Your task to perform on an android device: Play the new Taylor Swift video on YouTube Image 0: 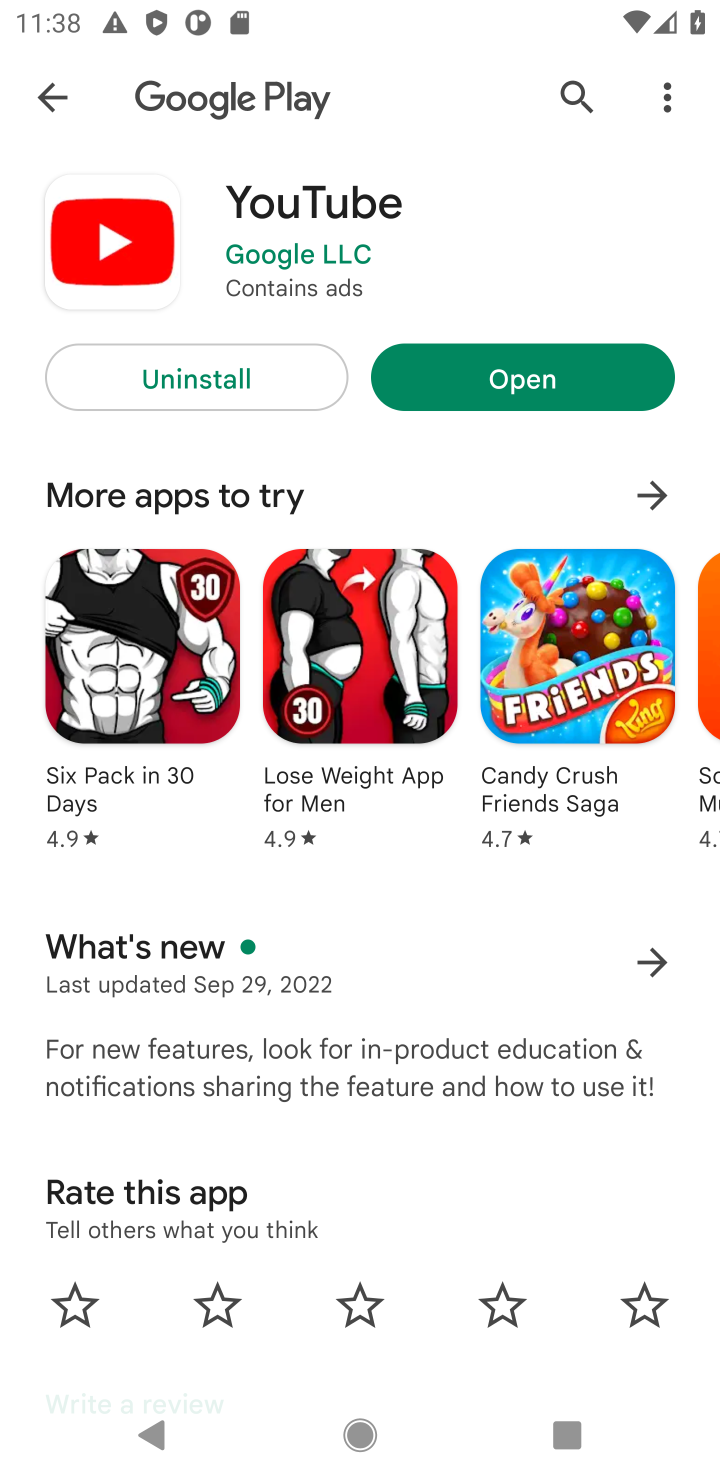
Step 0: press home button
Your task to perform on an android device: Play the new Taylor Swift video on YouTube Image 1: 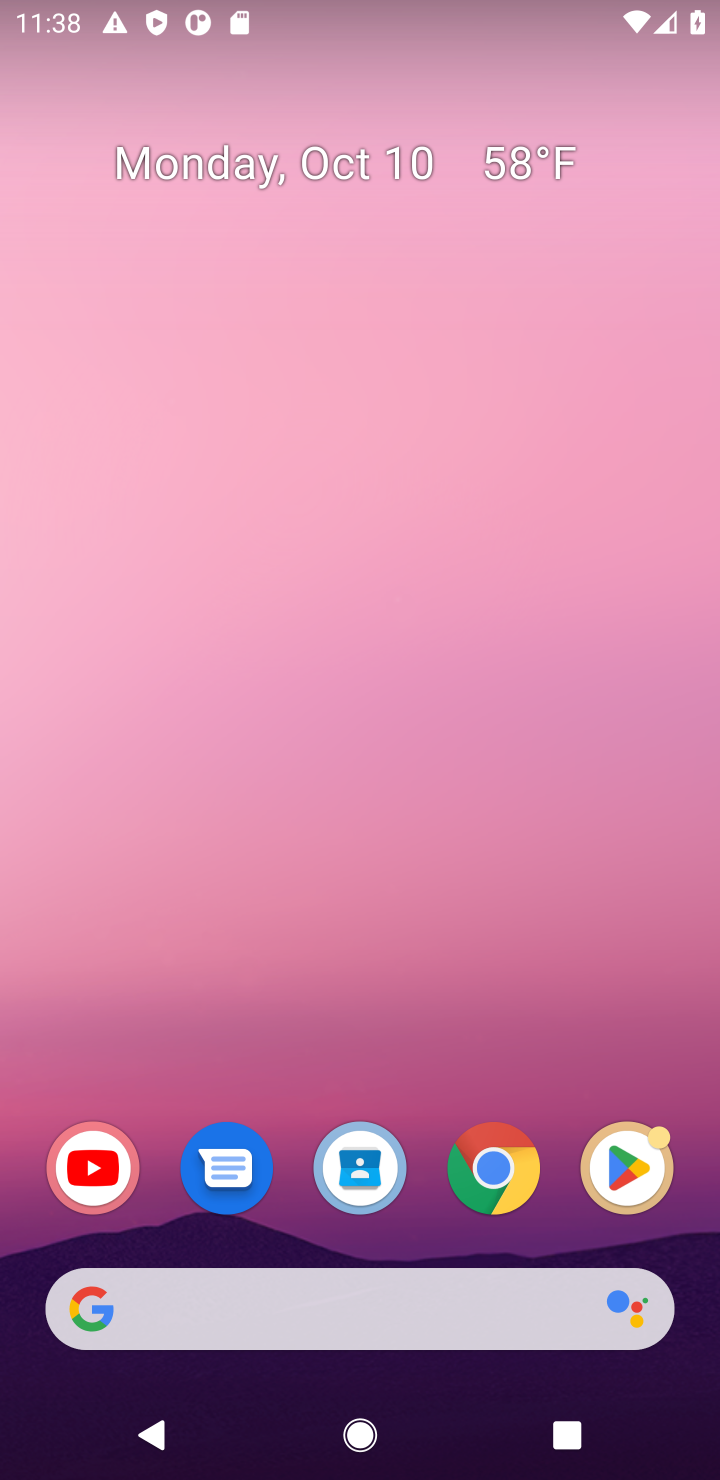
Step 1: click (121, 1156)
Your task to perform on an android device: Play the new Taylor Swift video on YouTube Image 2: 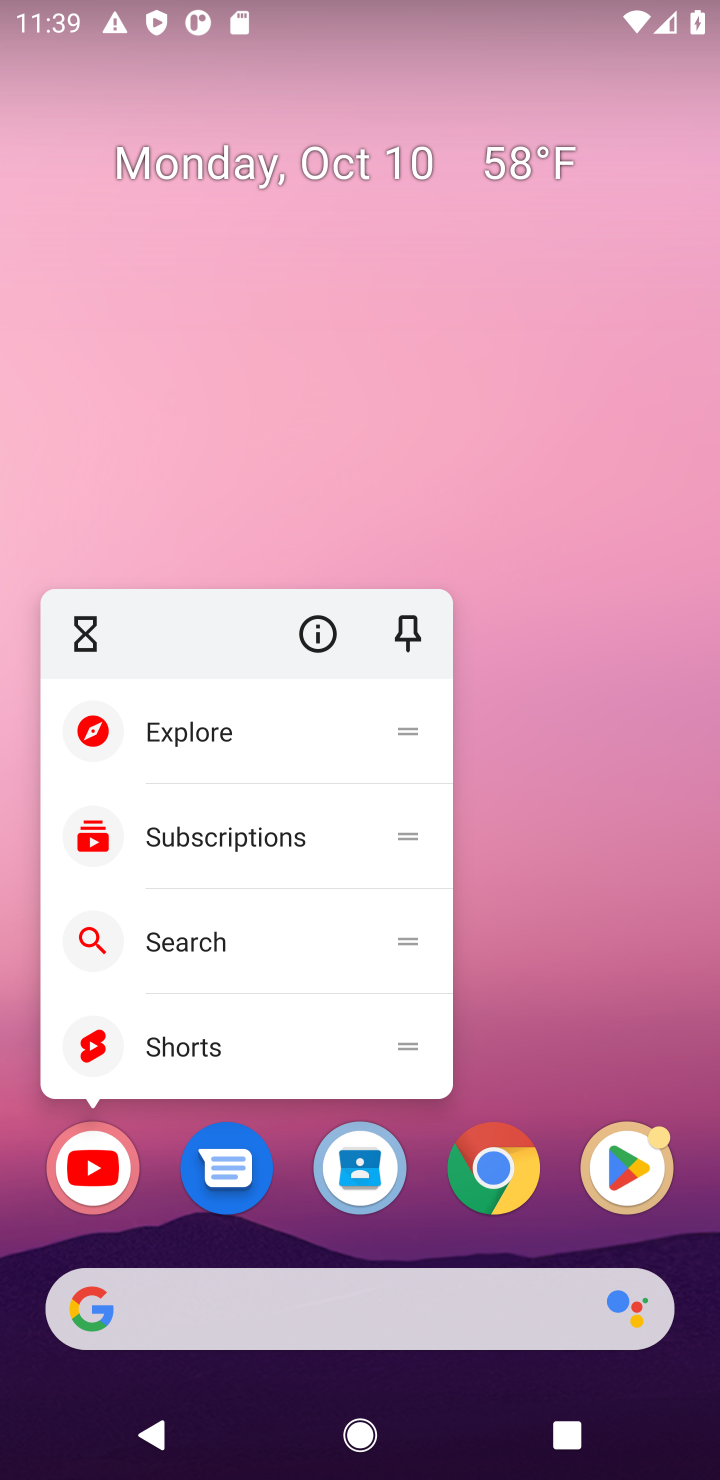
Step 2: click (86, 1183)
Your task to perform on an android device: Play the new Taylor Swift video on YouTube Image 3: 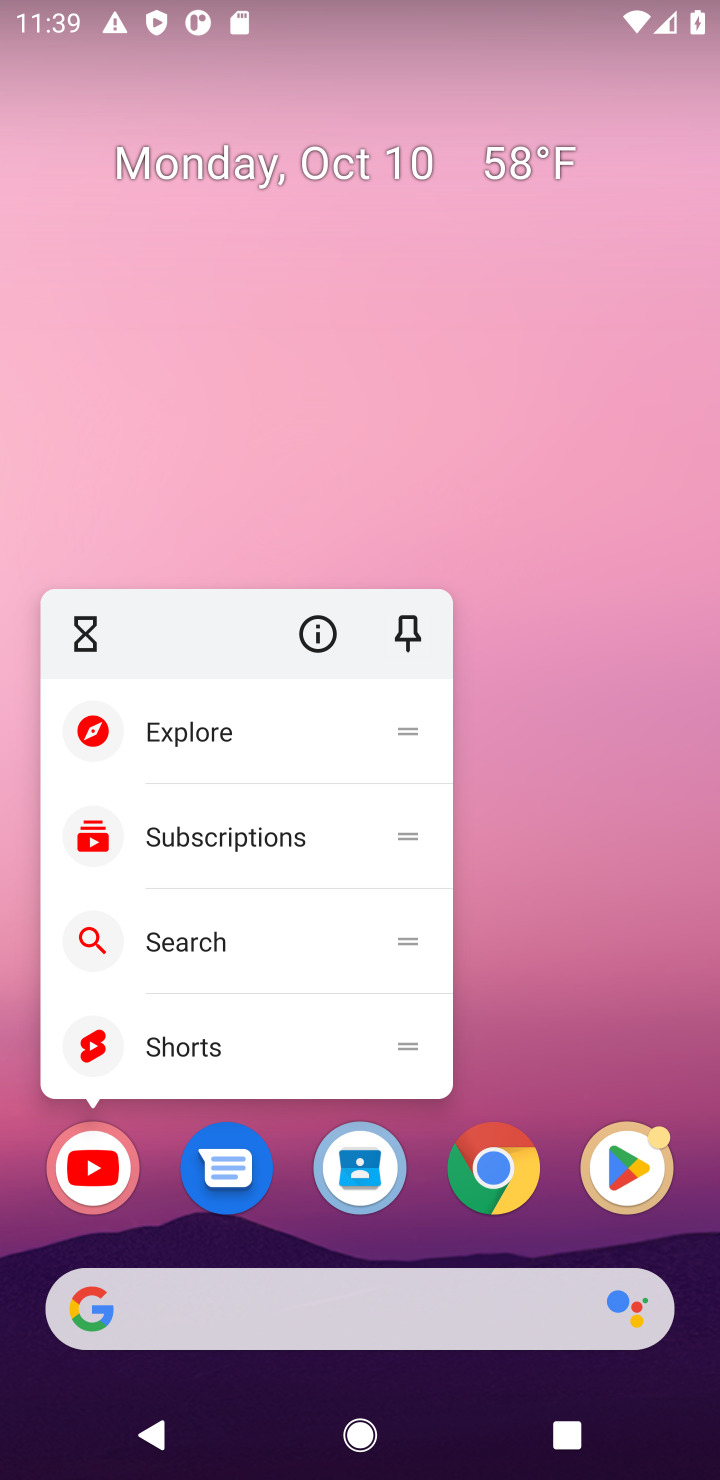
Step 3: click (80, 1179)
Your task to perform on an android device: Play the new Taylor Swift video on YouTube Image 4: 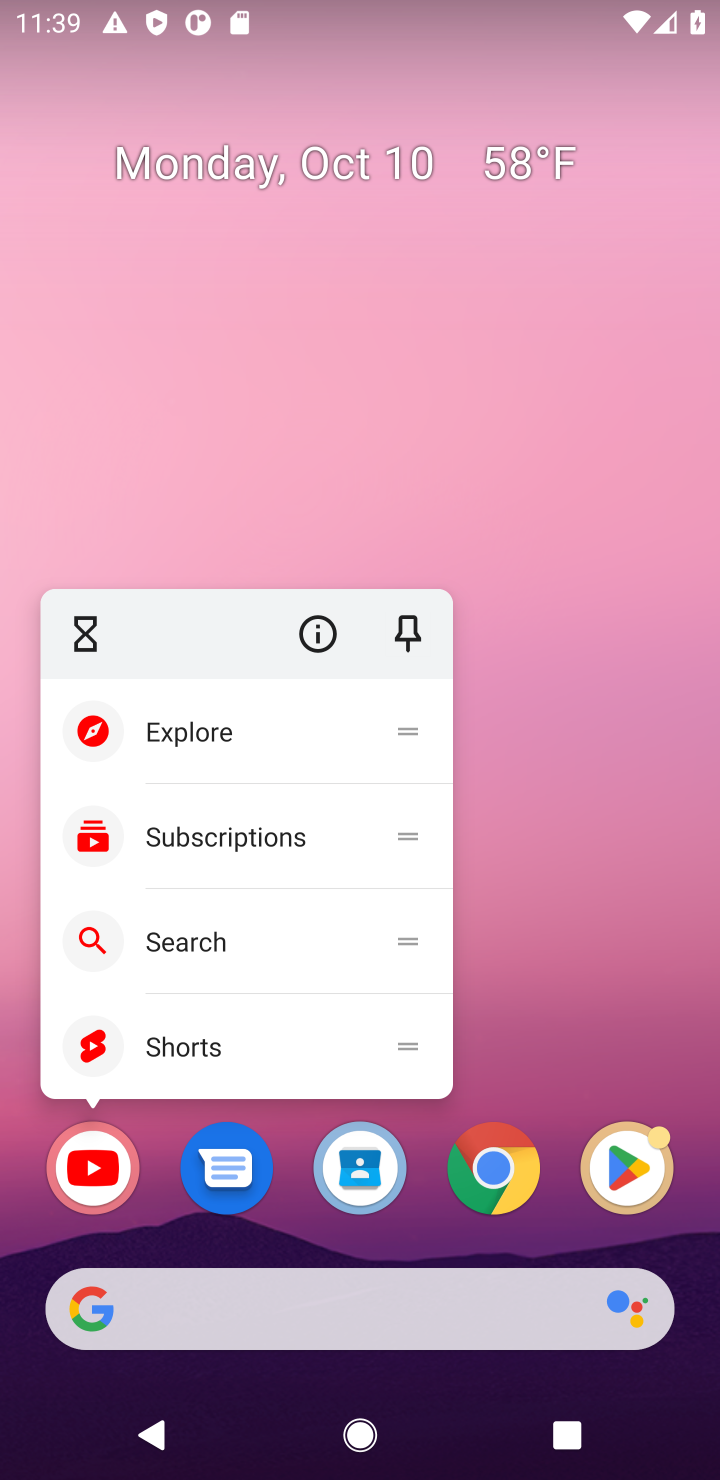
Step 4: click (99, 1170)
Your task to perform on an android device: Play the new Taylor Swift video on YouTube Image 5: 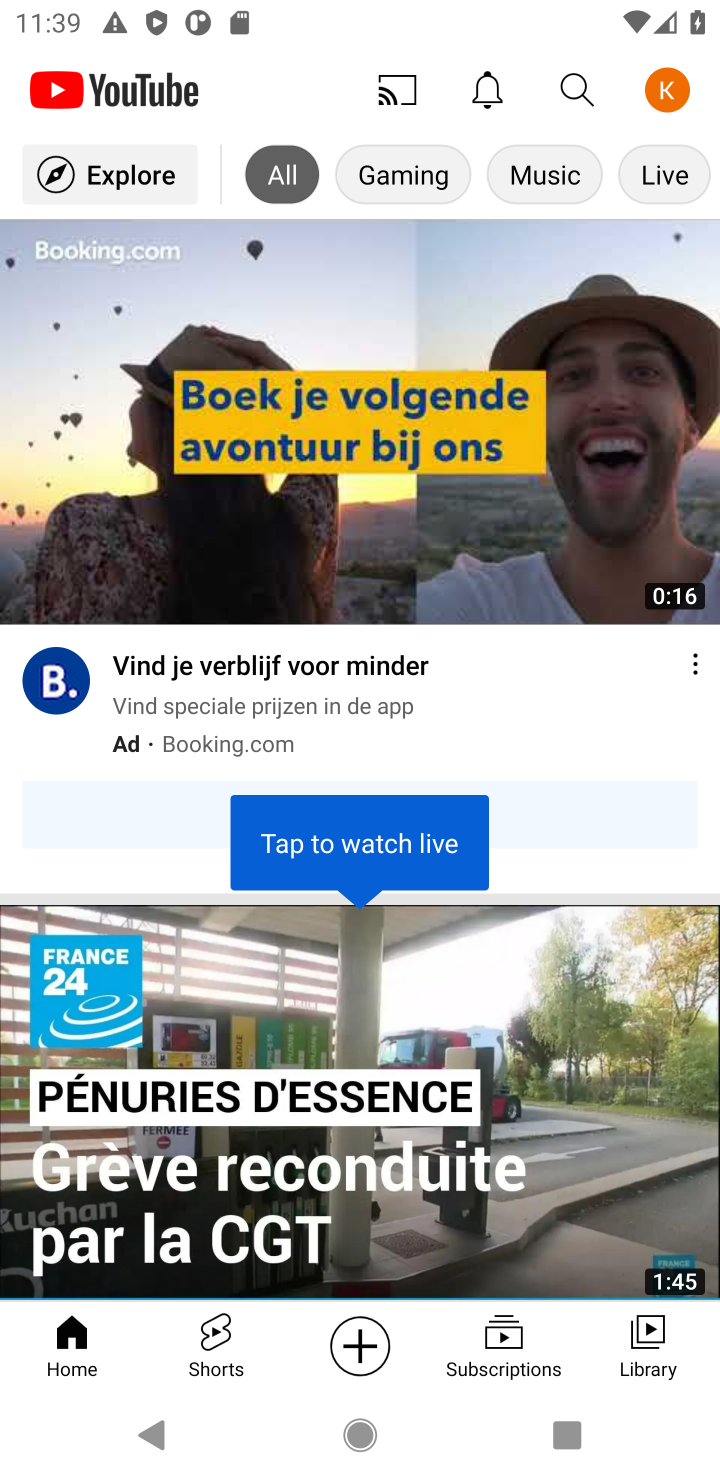
Step 5: click (563, 97)
Your task to perform on an android device: Play the new Taylor Swift video on YouTube Image 6: 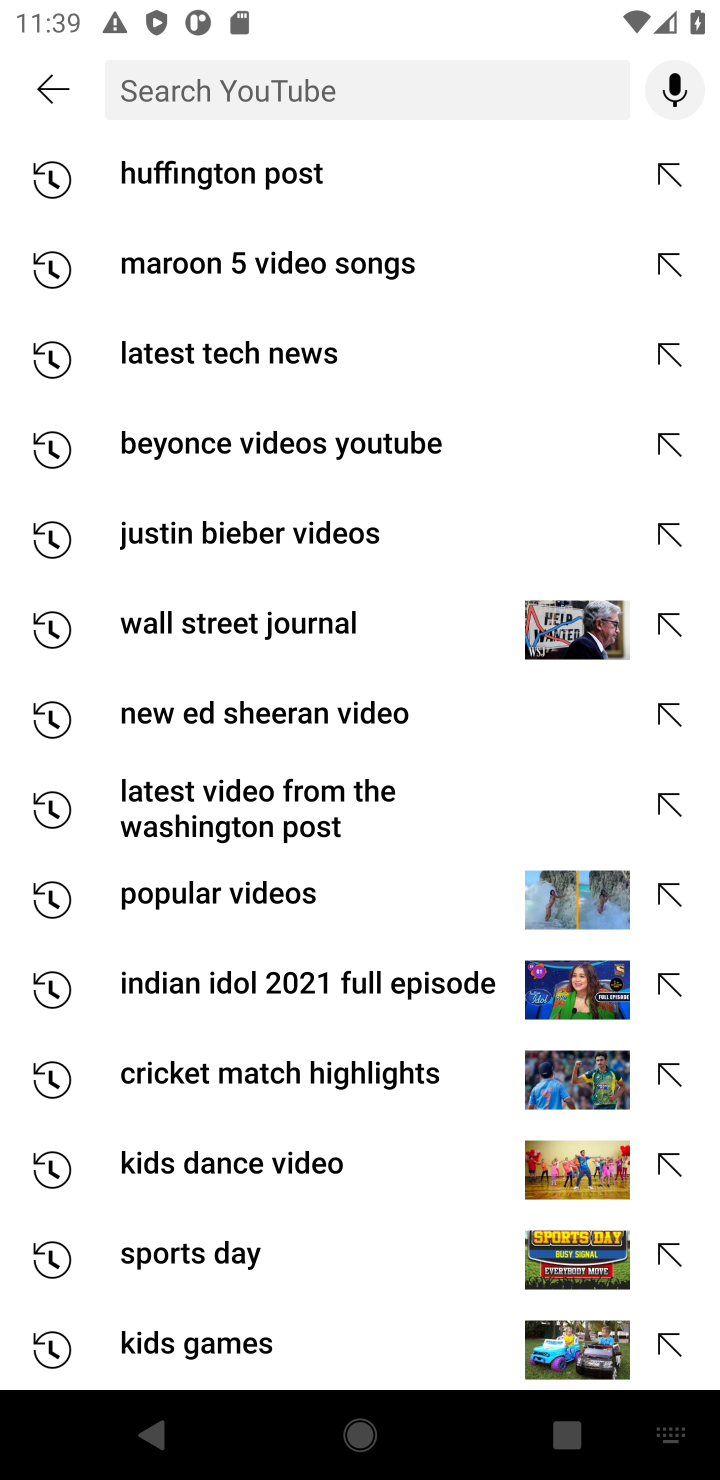
Step 6: type "Taylor Swift video"
Your task to perform on an android device: Play the new Taylor Swift video on YouTube Image 7: 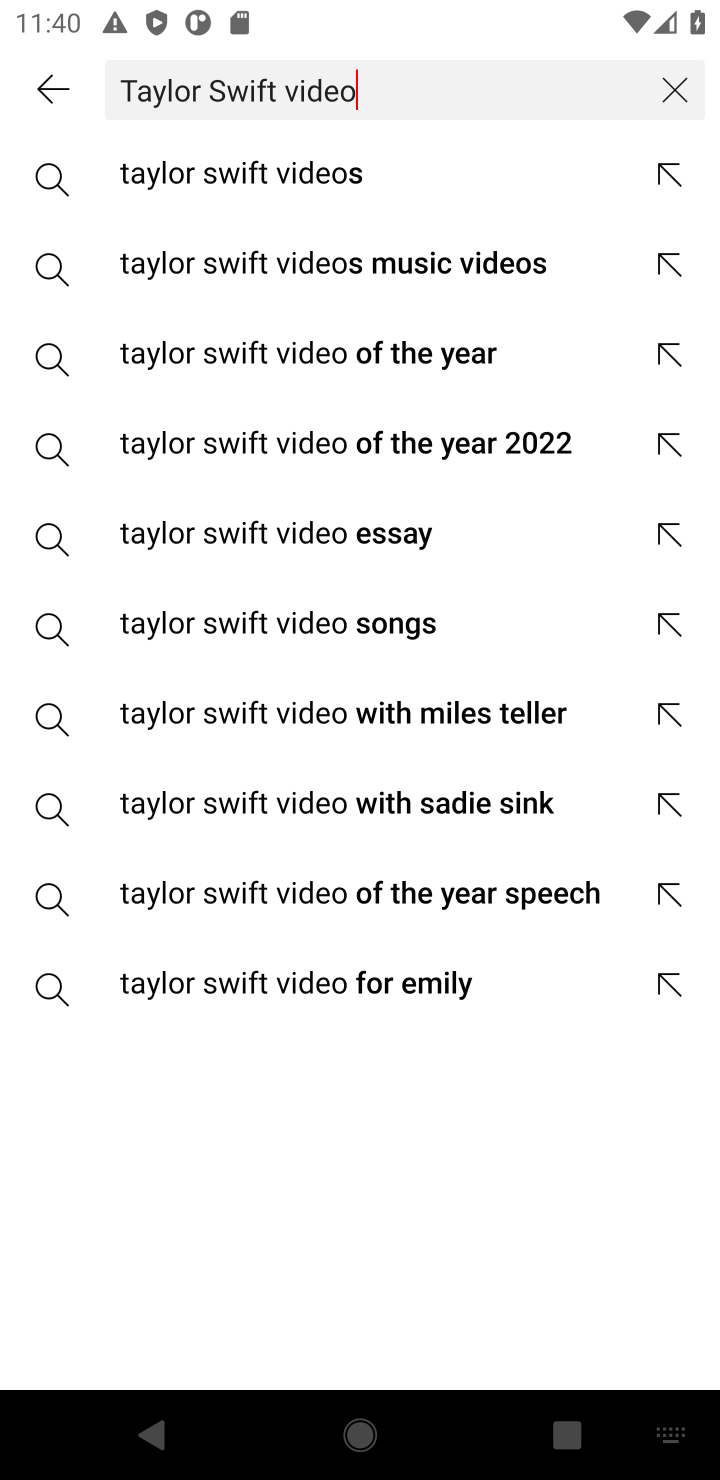
Step 7: click (282, 175)
Your task to perform on an android device: Play the new Taylor Swift video on YouTube Image 8: 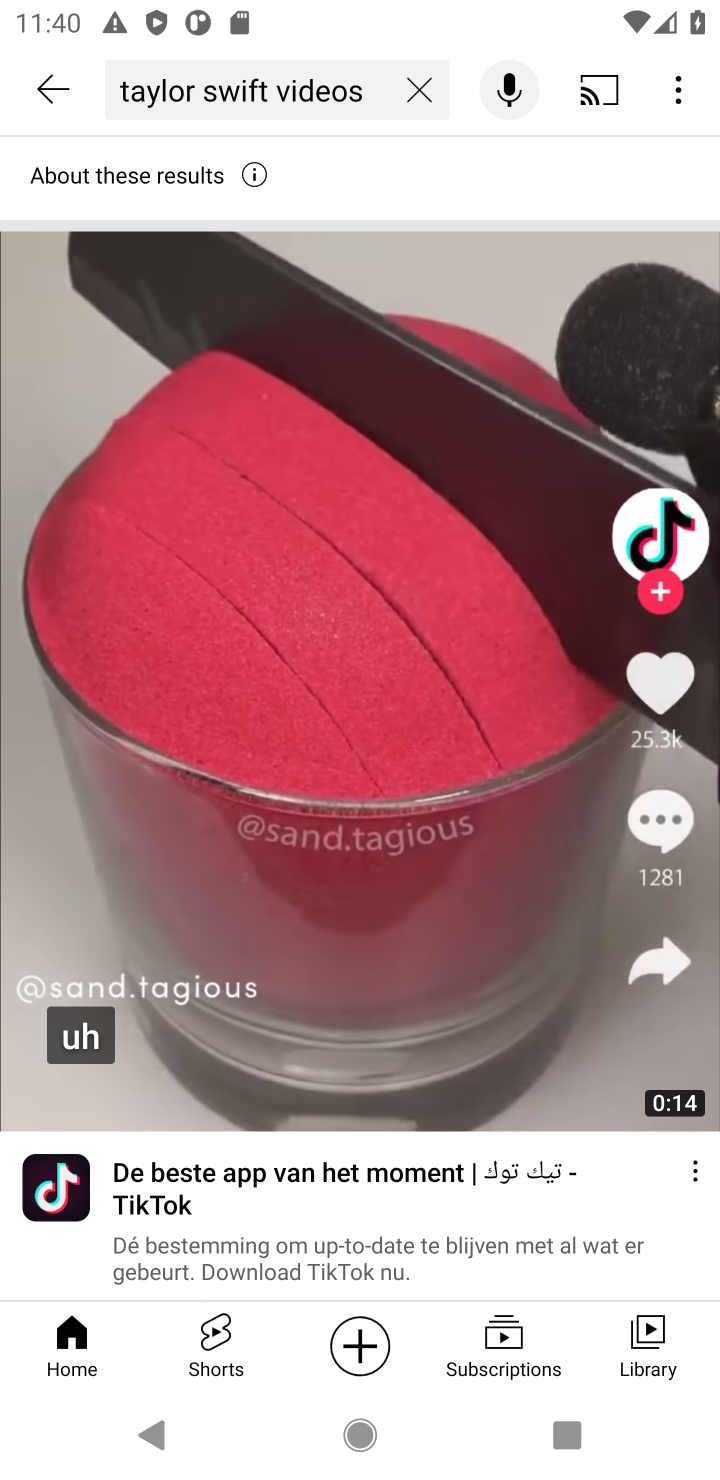
Step 8: drag from (284, 1072) to (296, 160)
Your task to perform on an android device: Play the new Taylor Swift video on YouTube Image 9: 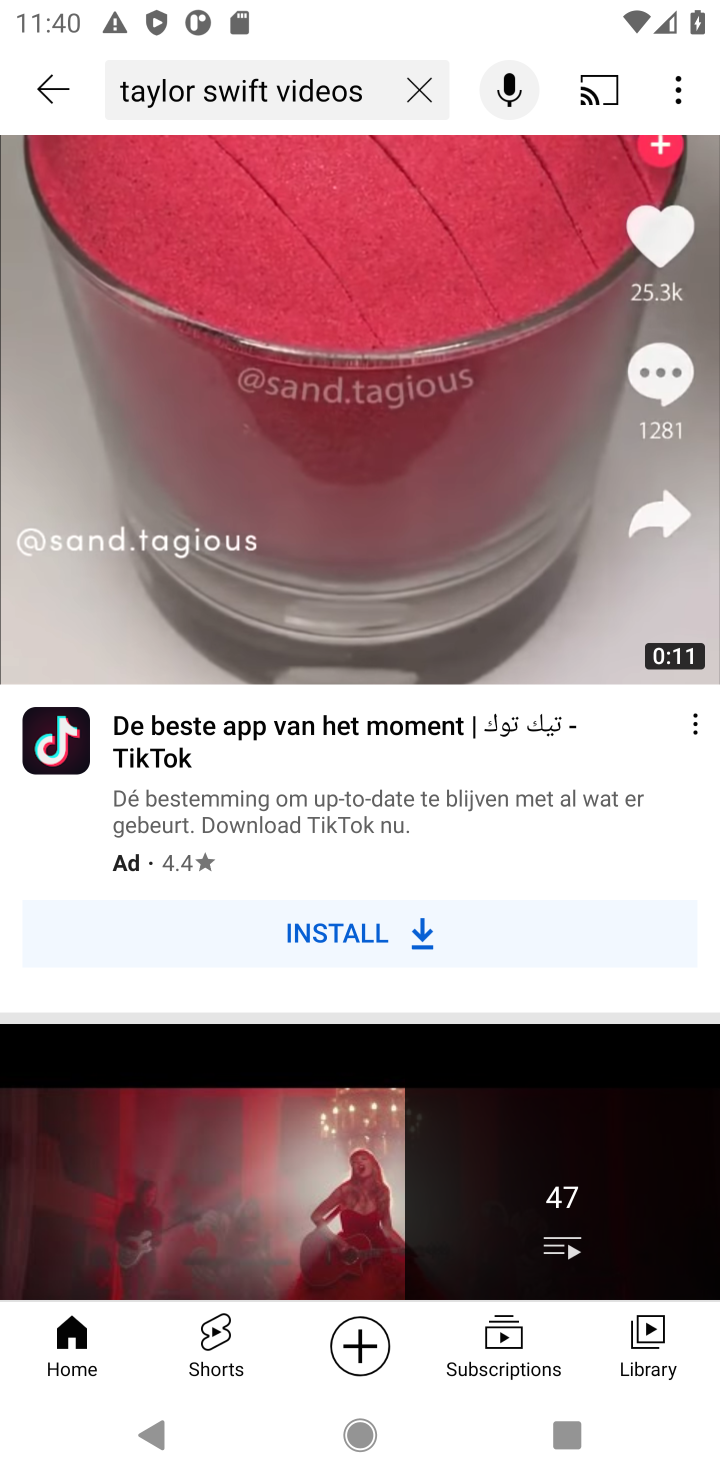
Step 9: drag from (368, 698) to (355, 341)
Your task to perform on an android device: Play the new Taylor Swift video on YouTube Image 10: 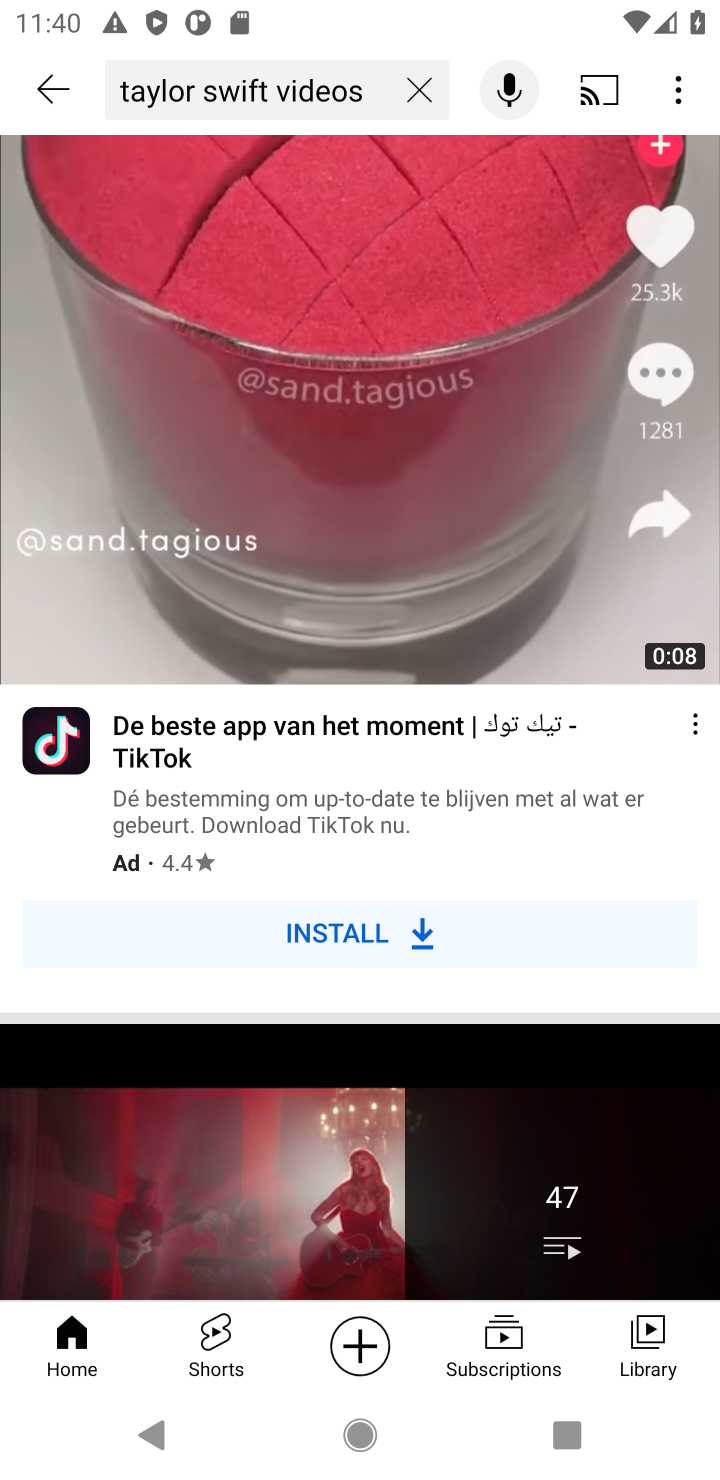
Step 10: drag from (391, 627) to (386, 367)
Your task to perform on an android device: Play the new Taylor Swift video on YouTube Image 11: 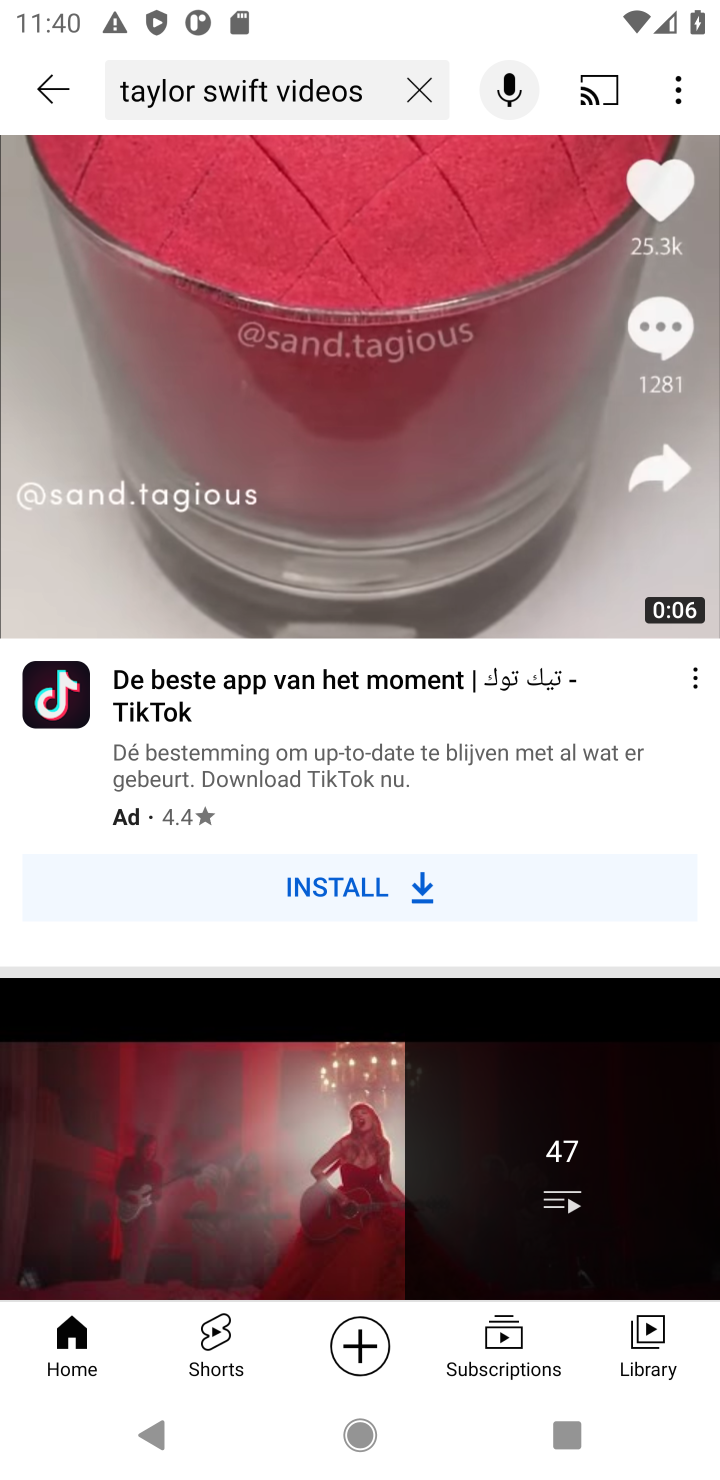
Step 11: drag from (471, 1010) to (494, 411)
Your task to perform on an android device: Play the new Taylor Swift video on YouTube Image 12: 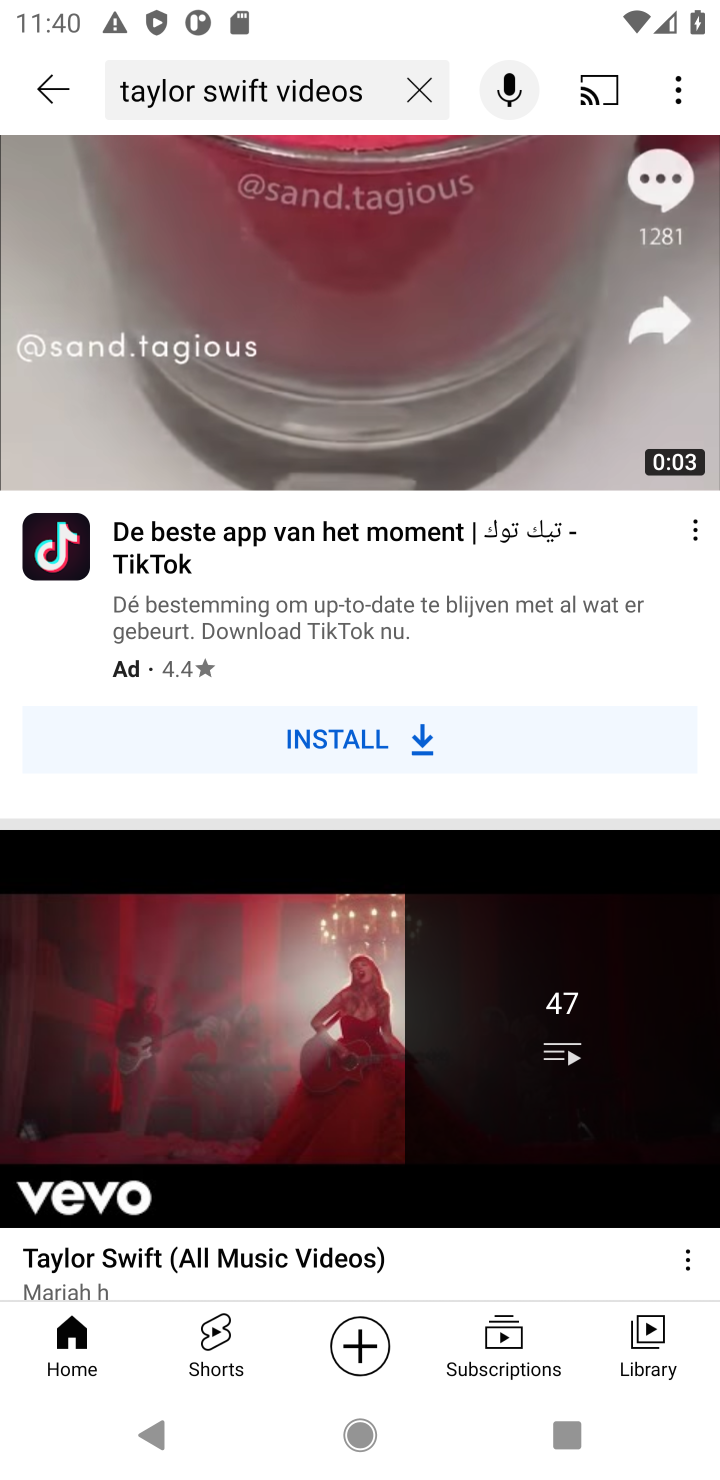
Step 12: drag from (349, 1243) to (415, 683)
Your task to perform on an android device: Play the new Taylor Swift video on YouTube Image 13: 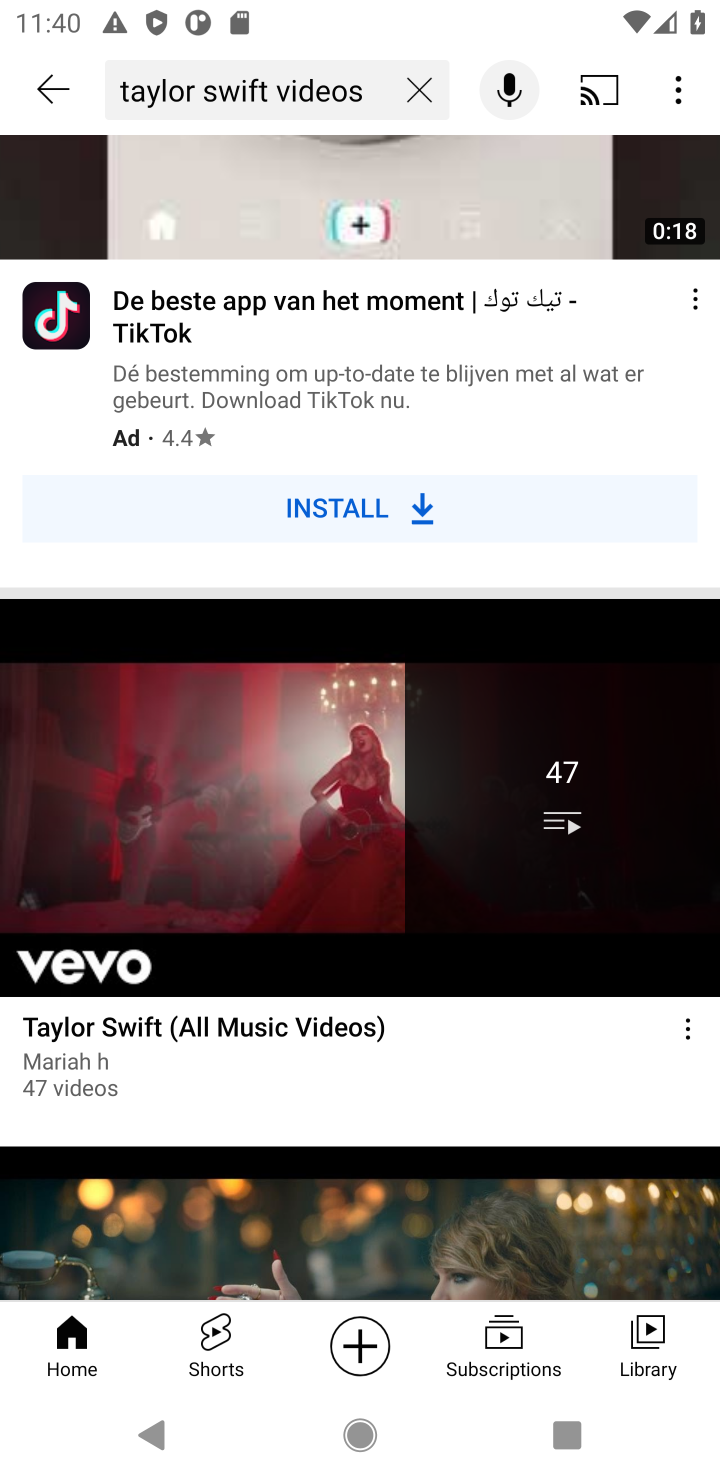
Step 13: drag from (396, 1160) to (422, 672)
Your task to perform on an android device: Play the new Taylor Swift video on YouTube Image 14: 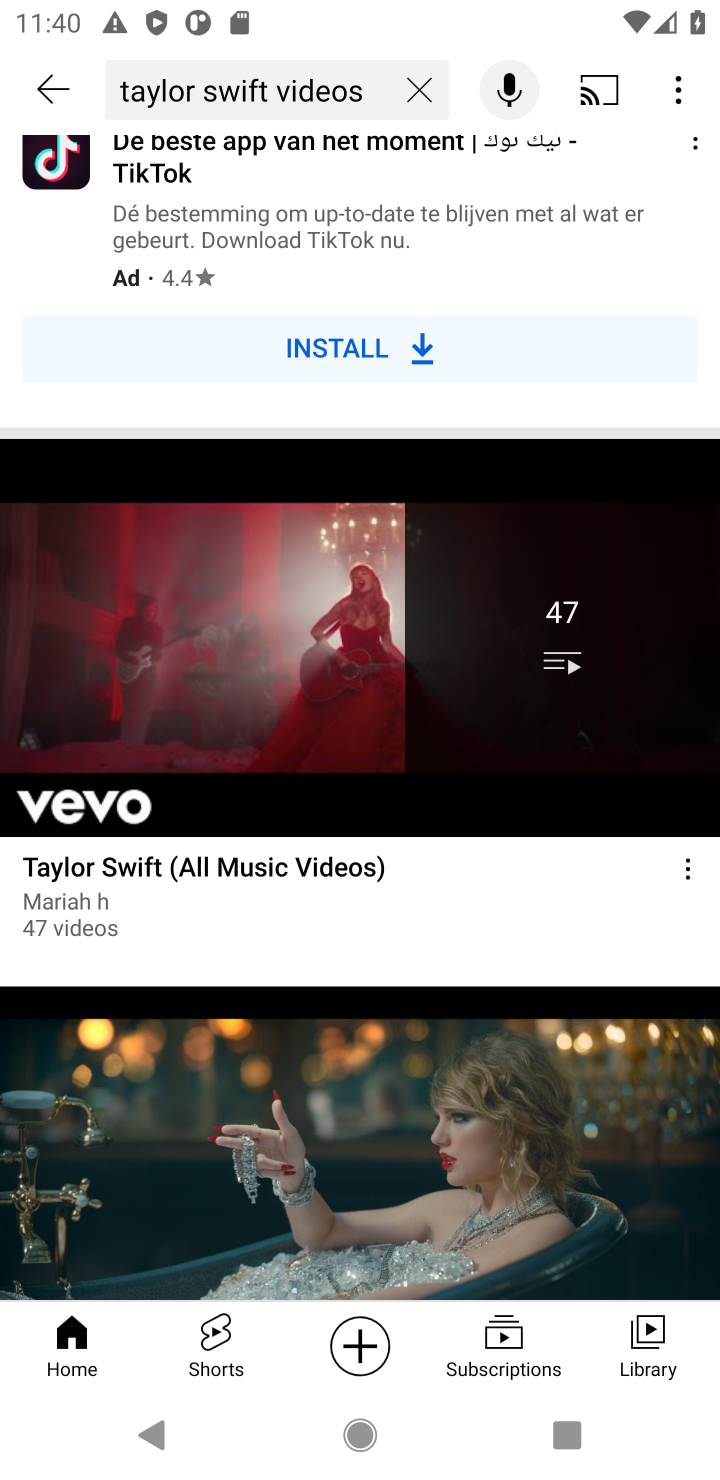
Step 14: click (381, 1092)
Your task to perform on an android device: Play the new Taylor Swift video on YouTube Image 15: 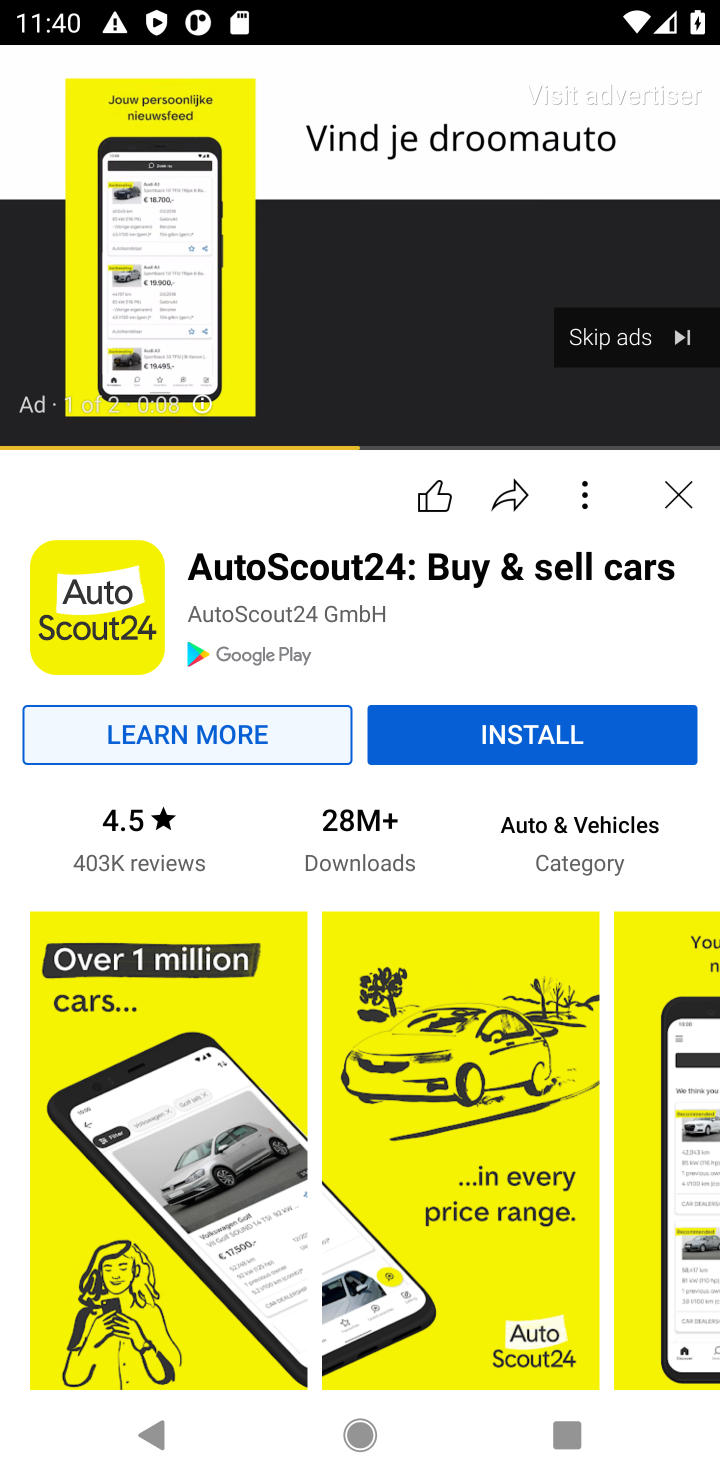
Step 15: click (646, 327)
Your task to perform on an android device: Play the new Taylor Swift video on YouTube Image 16: 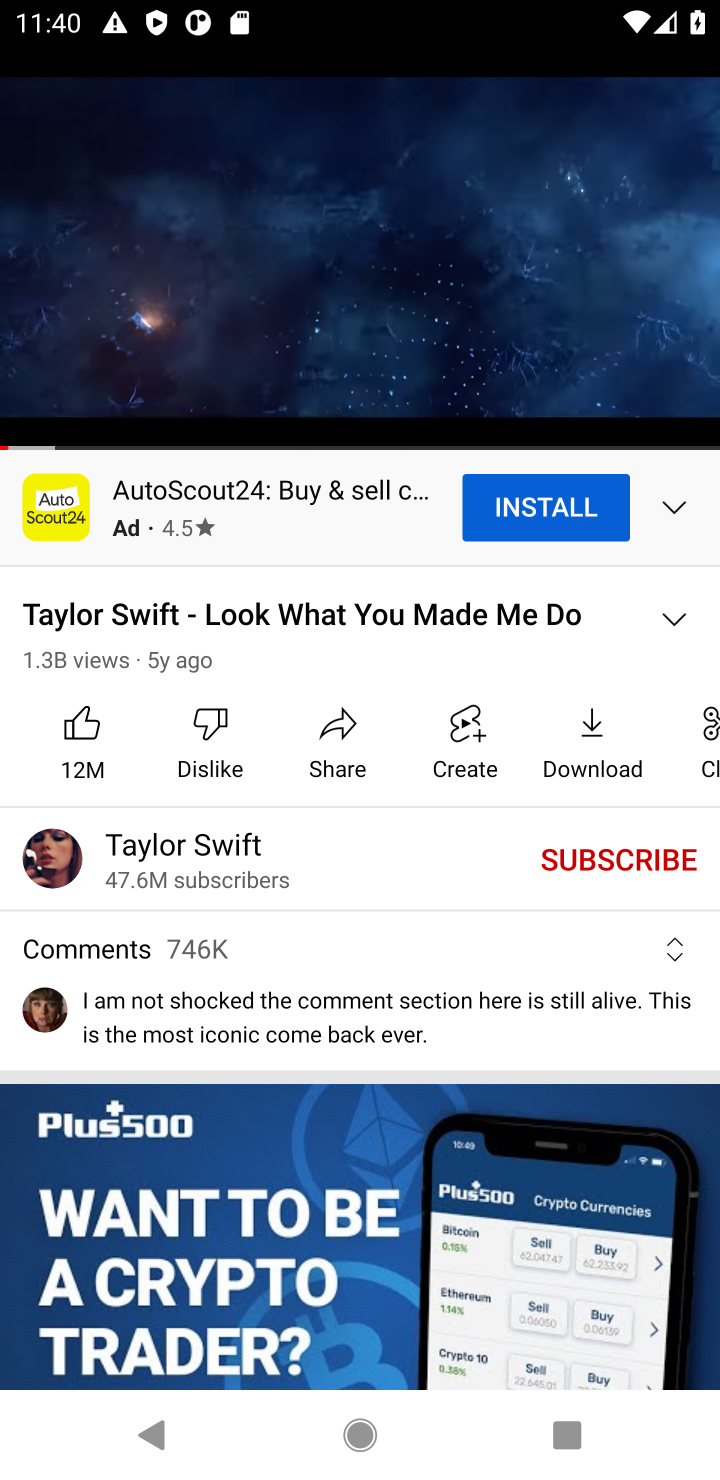
Step 16: click (409, 252)
Your task to perform on an android device: Play the new Taylor Swift video on YouTube Image 17: 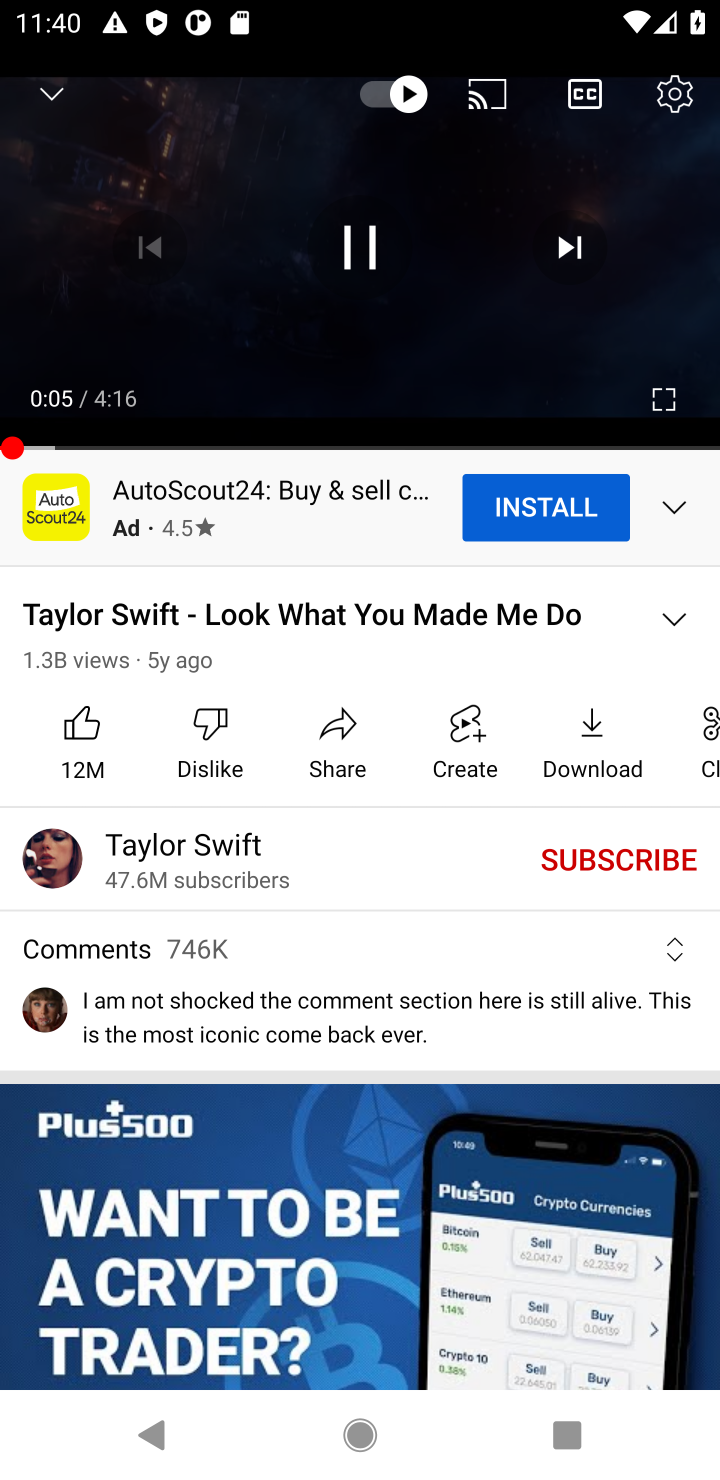
Step 17: click (349, 268)
Your task to perform on an android device: Play the new Taylor Swift video on YouTube Image 18: 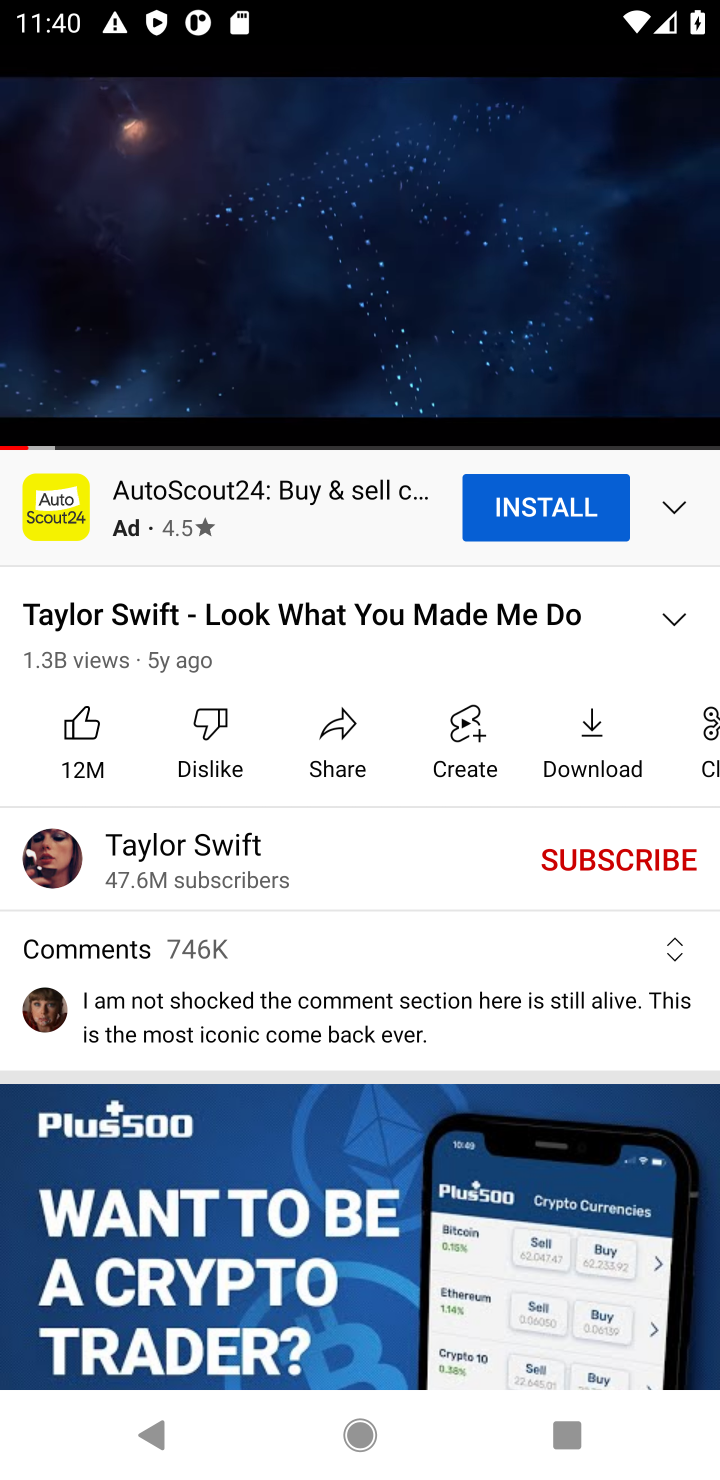
Step 18: click (348, 283)
Your task to perform on an android device: Play the new Taylor Swift video on YouTube Image 19: 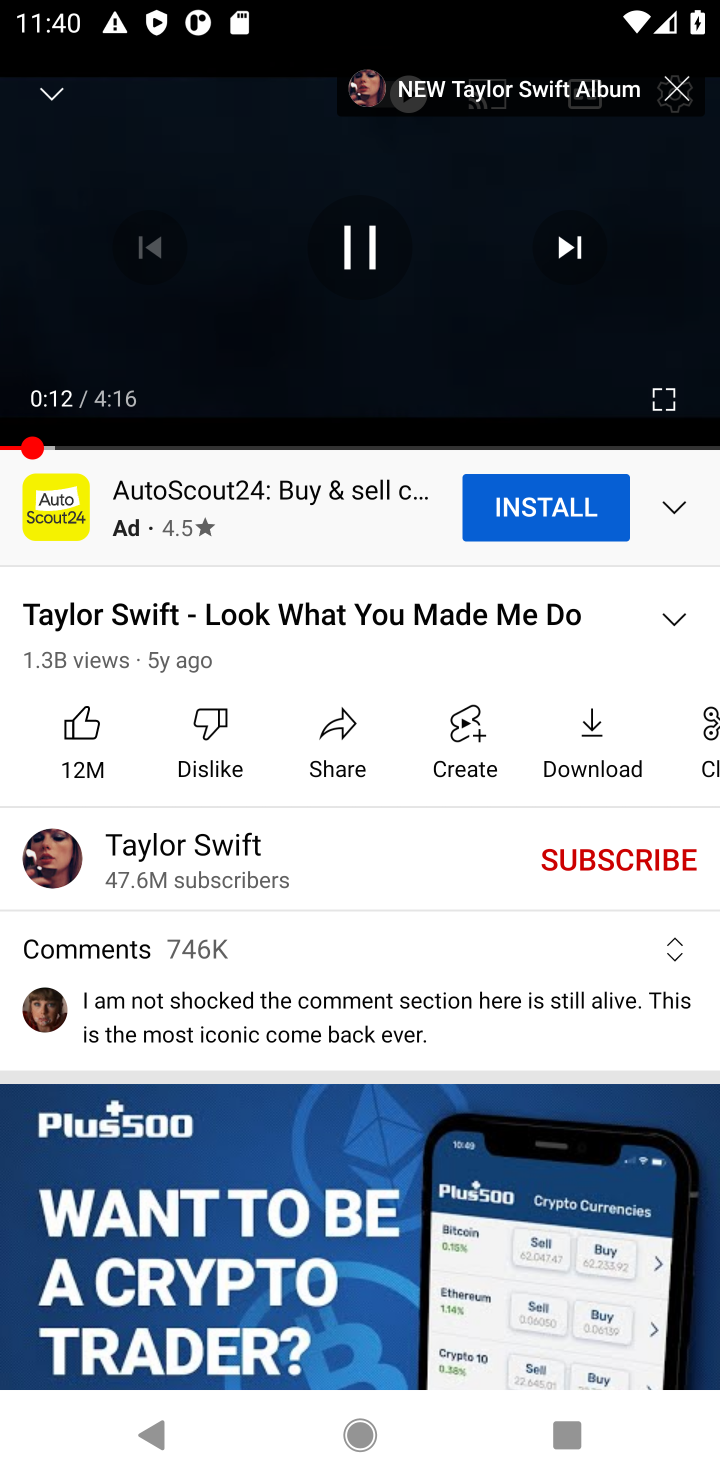
Step 19: click (379, 264)
Your task to perform on an android device: Play the new Taylor Swift video on YouTube Image 20: 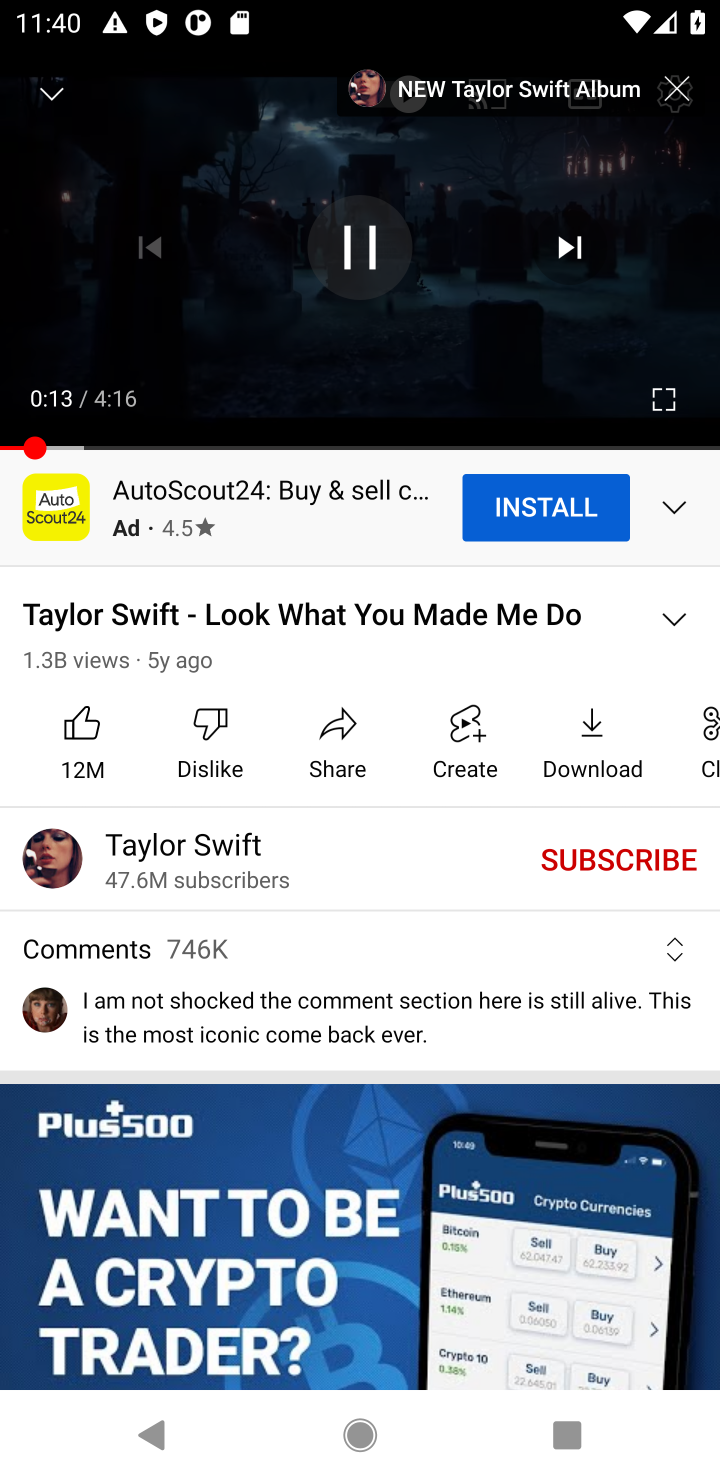
Step 20: click (379, 264)
Your task to perform on an android device: Play the new Taylor Swift video on YouTube Image 21: 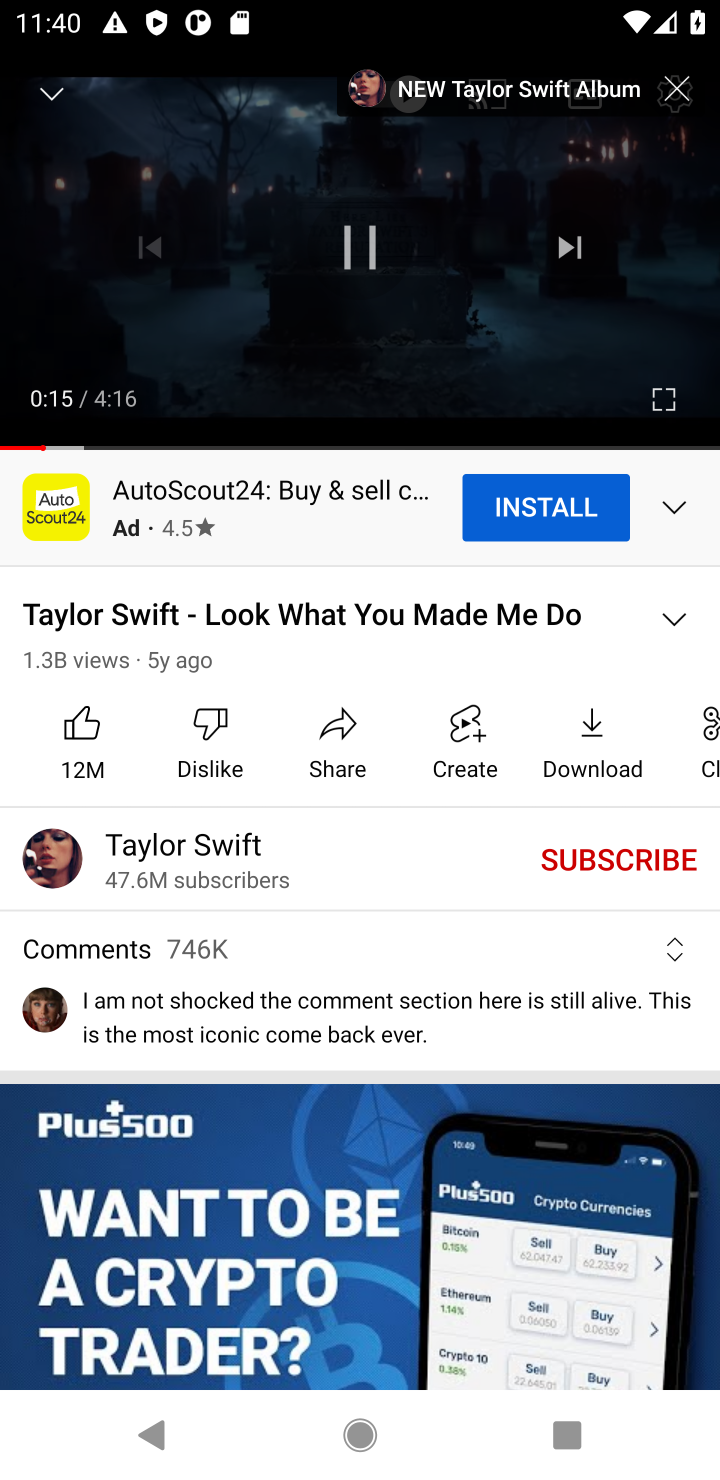
Step 21: click (361, 260)
Your task to perform on an android device: Play the new Taylor Swift video on YouTube Image 22: 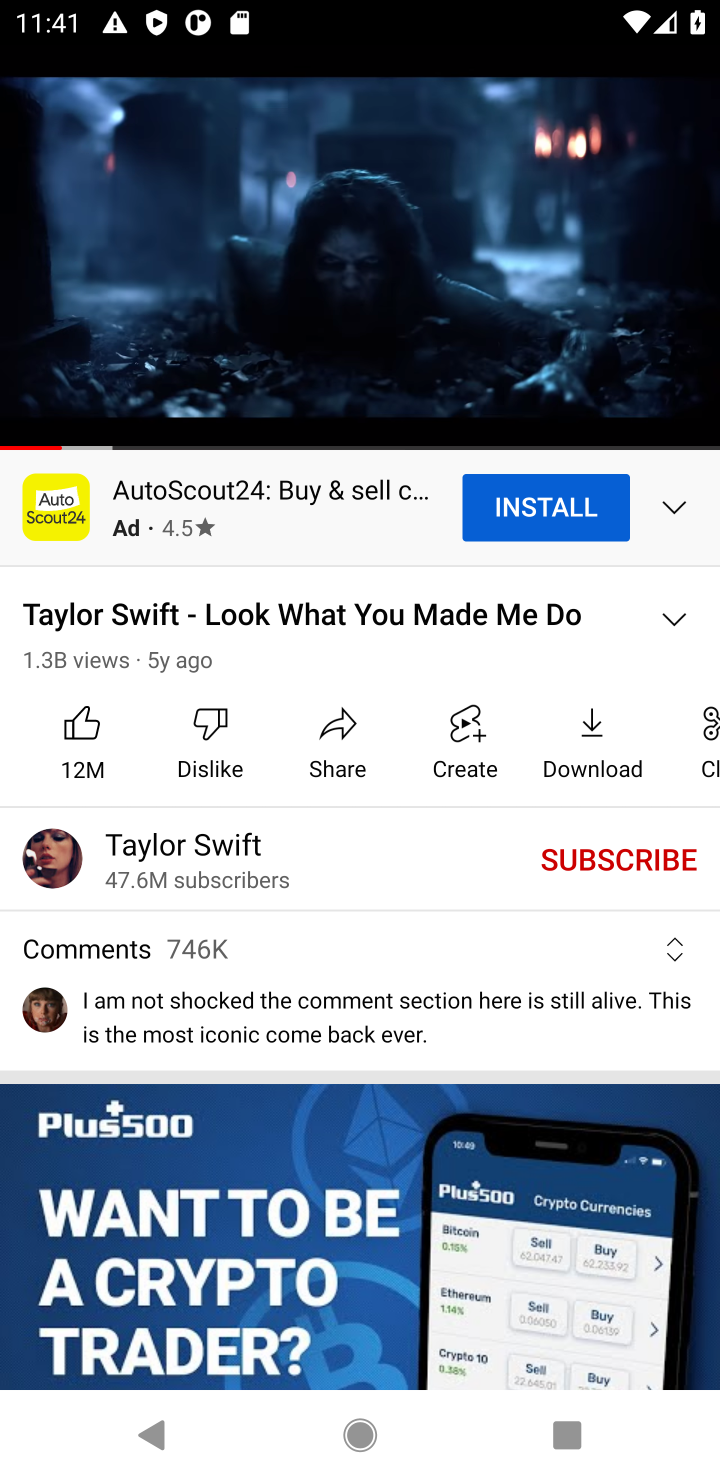
Step 22: click (327, 265)
Your task to perform on an android device: Play the new Taylor Swift video on YouTube Image 23: 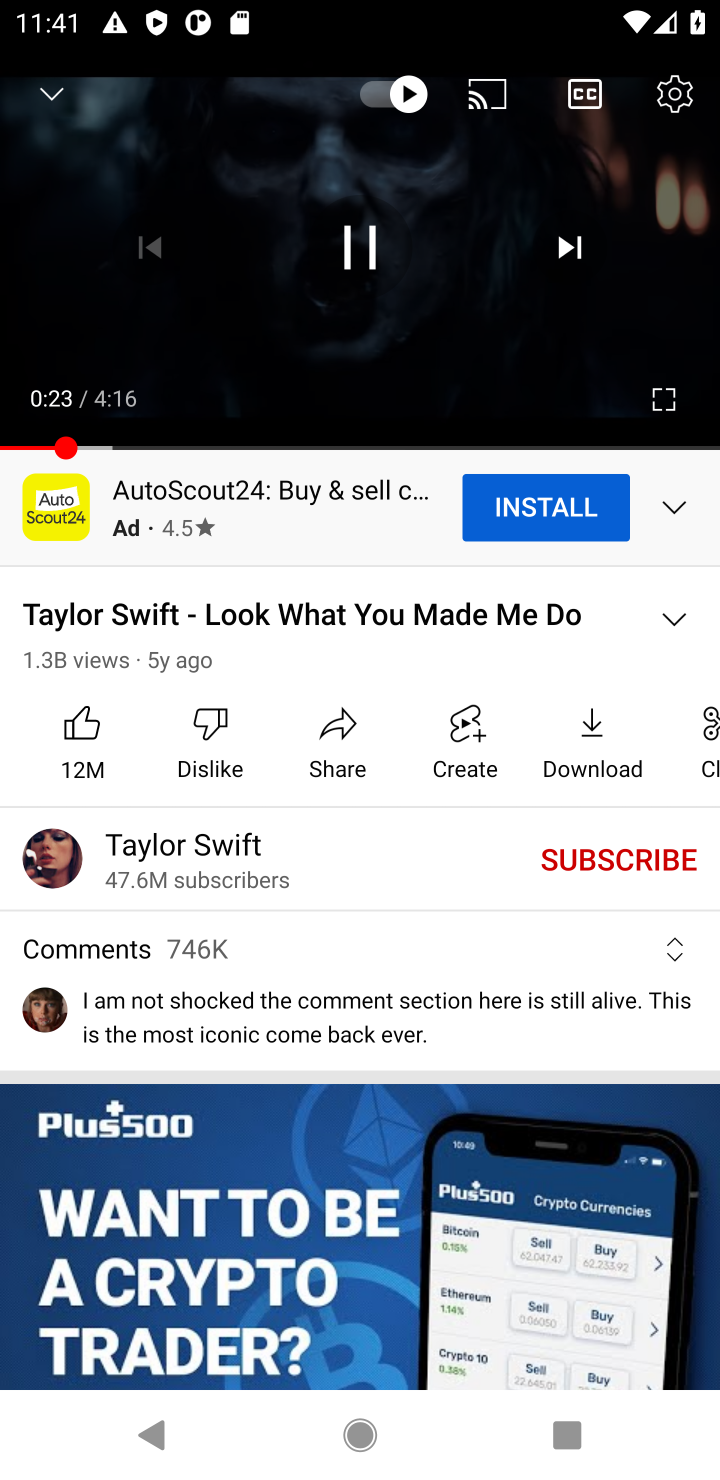
Step 23: click (348, 265)
Your task to perform on an android device: Play the new Taylor Swift video on YouTube Image 24: 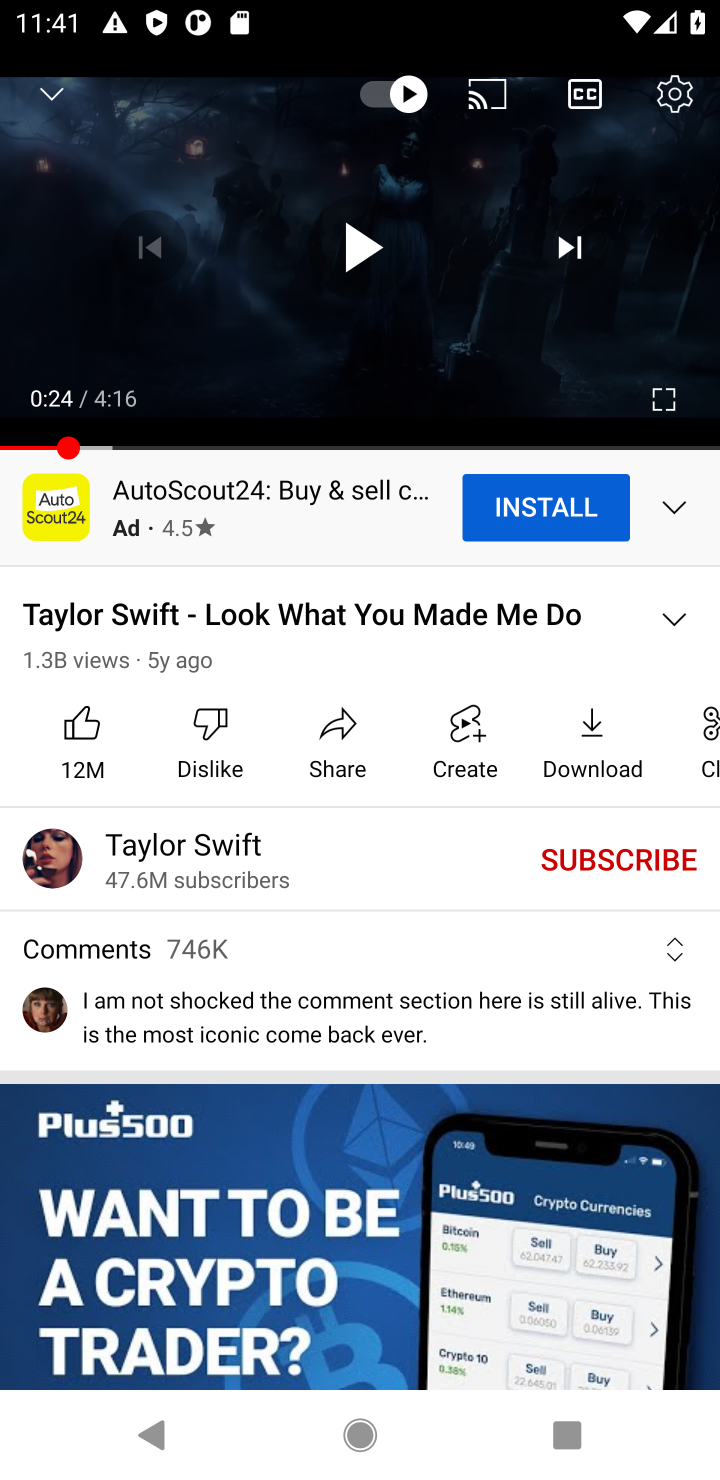
Step 24: task complete